Your task to perform on an android device: Open settings on Google Maps Image 0: 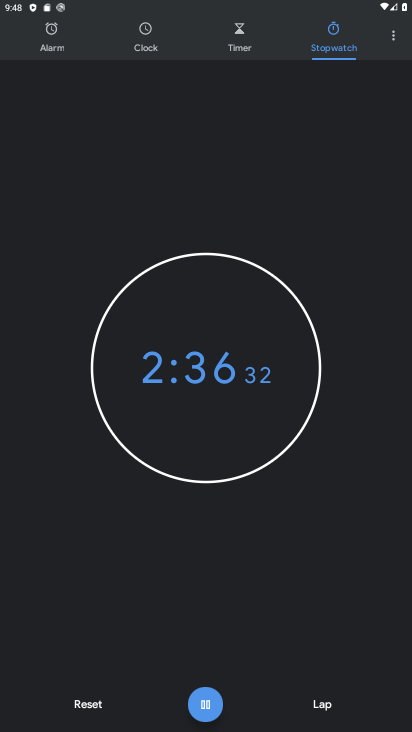
Step 0: drag from (221, 644) to (261, 301)
Your task to perform on an android device: Open settings on Google Maps Image 1: 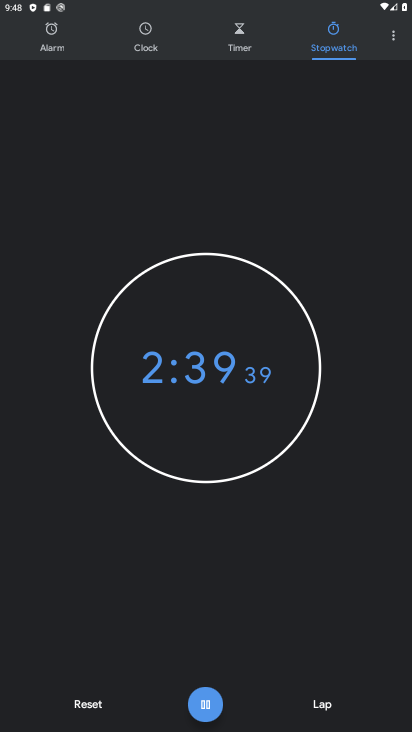
Step 1: press home button
Your task to perform on an android device: Open settings on Google Maps Image 2: 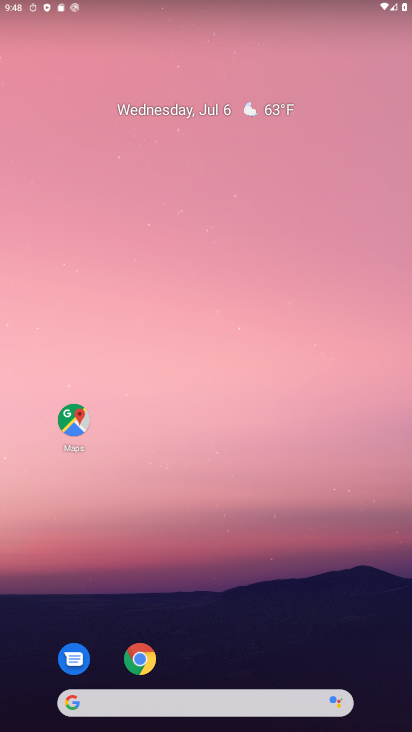
Step 2: drag from (223, 627) to (319, 304)
Your task to perform on an android device: Open settings on Google Maps Image 3: 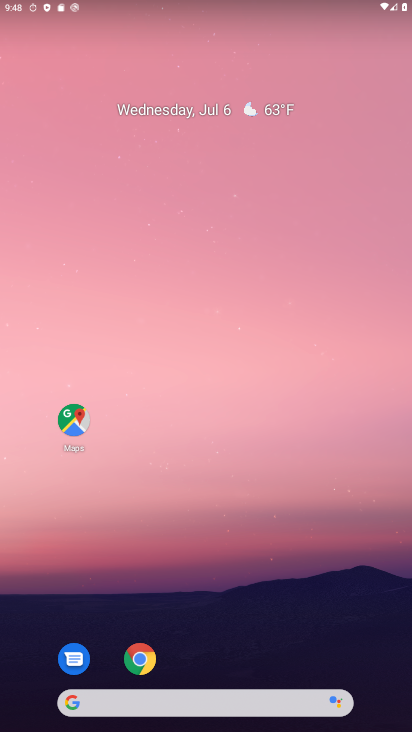
Step 3: drag from (237, 644) to (230, 276)
Your task to perform on an android device: Open settings on Google Maps Image 4: 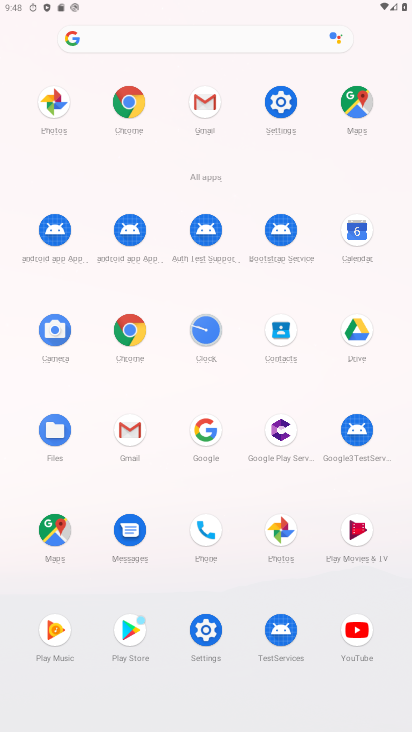
Step 4: click (47, 522)
Your task to perform on an android device: Open settings on Google Maps Image 5: 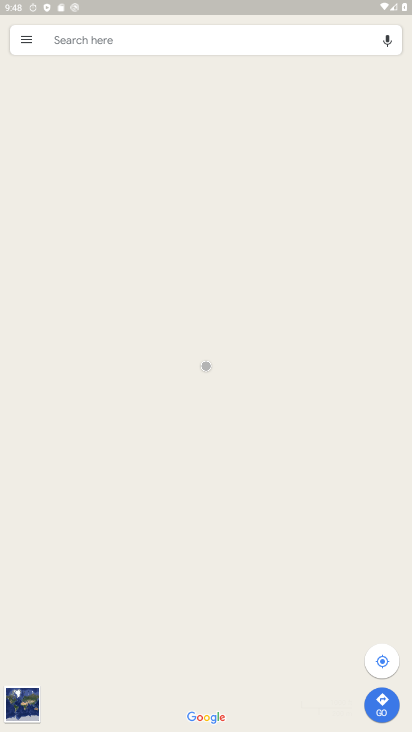
Step 5: click (28, 43)
Your task to perform on an android device: Open settings on Google Maps Image 6: 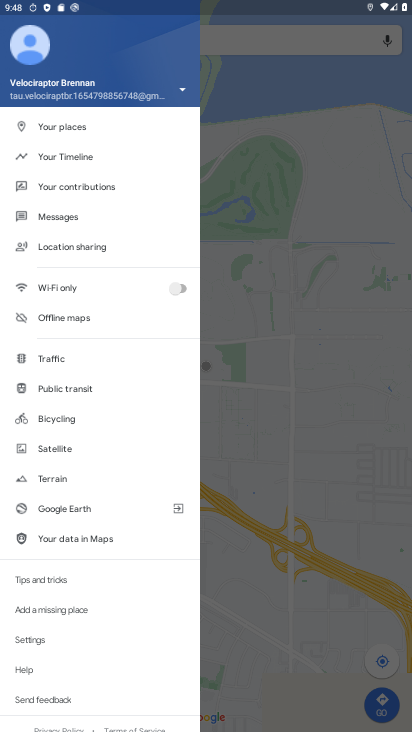
Step 6: click (49, 640)
Your task to perform on an android device: Open settings on Google Maps Image 7: 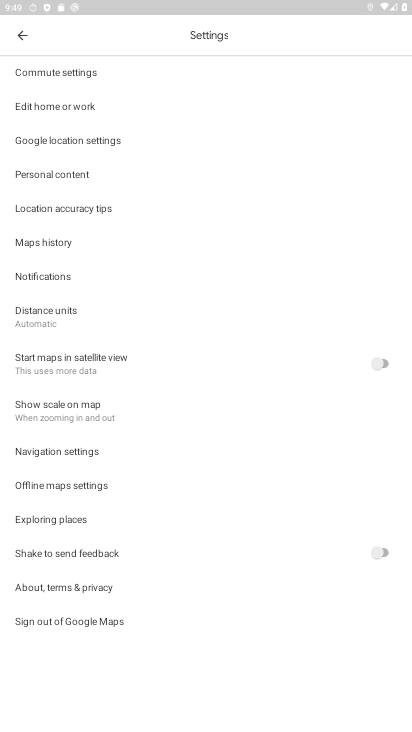
Step 7: task complete